Your task to perform on an android device: Go to Google Image 0: 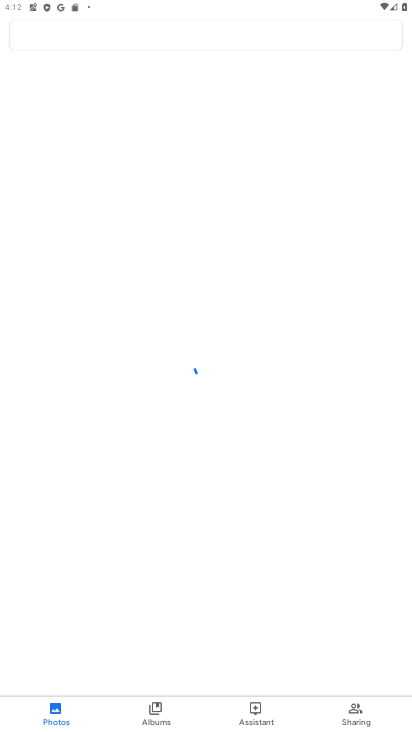
Step 0: press home button
Your task to perform on an android device: Go to Google Image 1: 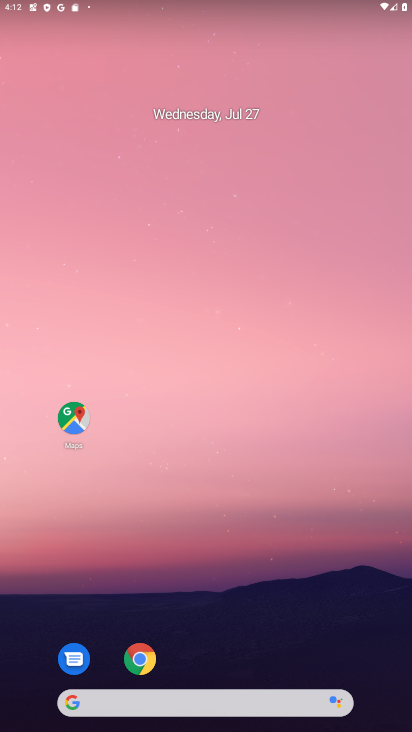
Step 1: drag from (315, 628) to (321, 2)
Your task to perform on an android device: Go to Google Image 2: 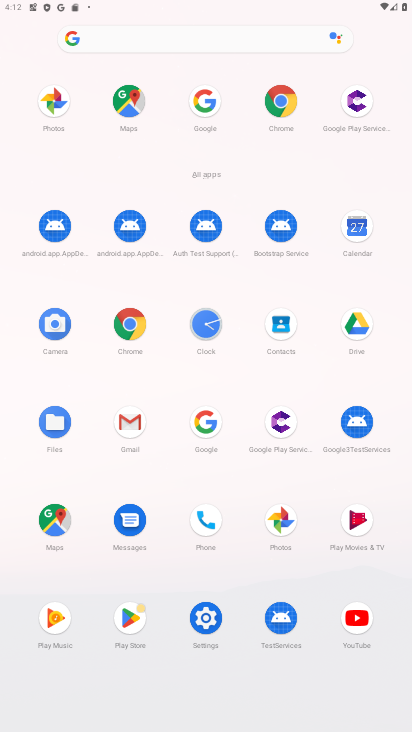
Step 2: click (209, 113)
Your task to perform on an android device: Go to Google Image 3: 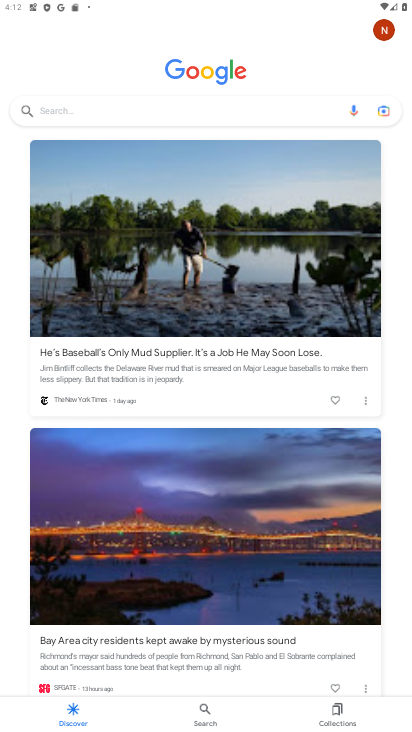
Step 3: task complete